Your task to perform on an android device: Do I have any events today? Image 0: 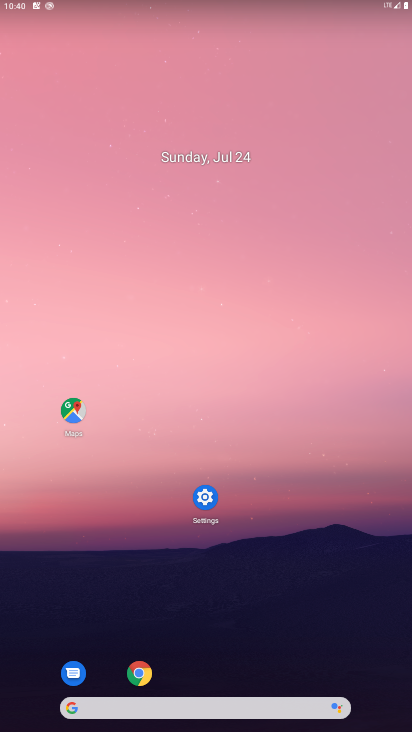
Step 0: drag from (314, 551) to (343, 75)
Your task to perform on an android device: Do I have any events today? Image 1: 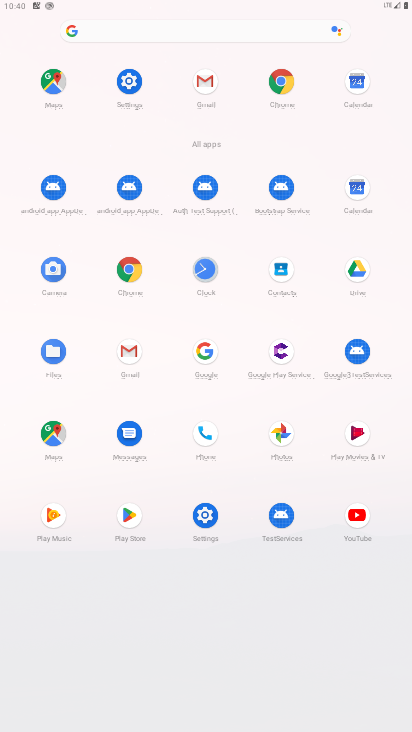
Step 1: click (361, 182)
Your task to perform on an android device: Do I have any events today? Image 2: 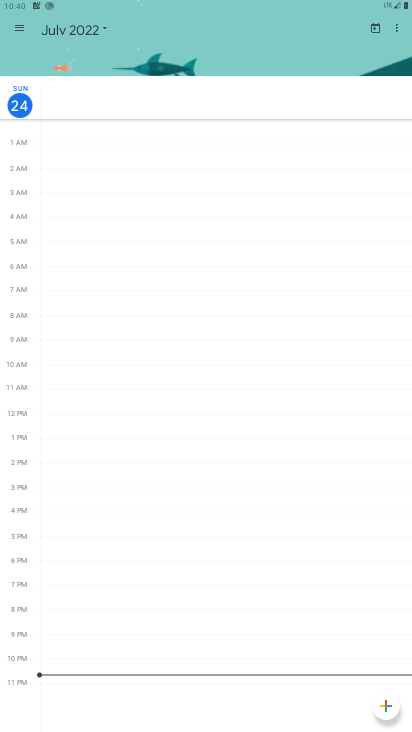
Step 2: task complete